Your task to perform on an android device: Go to battery settings Image 0: 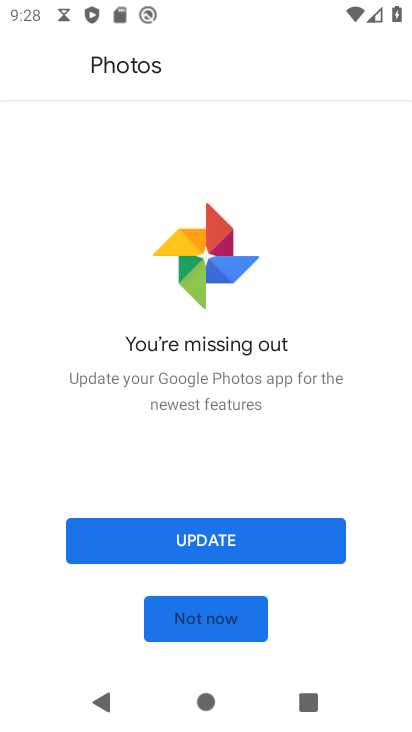
Step 0: press home button
Your task to perform on an android device: Go to battery settings Image 1: 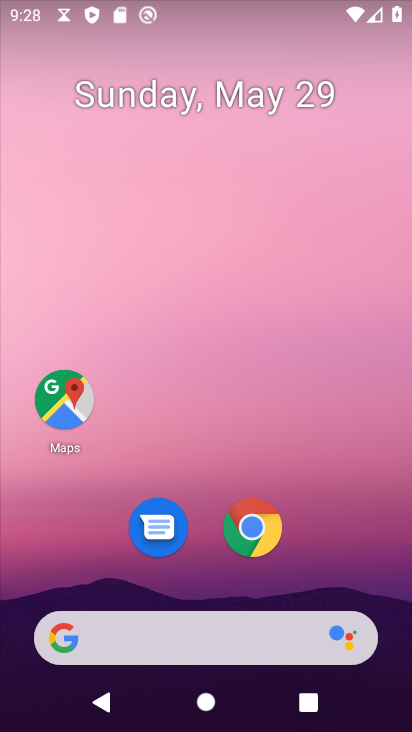
Step 1: drag from (189, 627) to (313, 128)
Your task to perform on an android device: Go to battery settings Image 2: 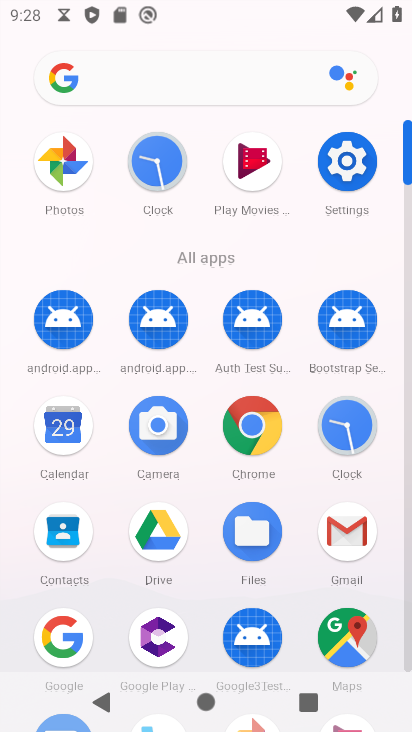
Step 2: click (345, 169)
Your task to perform on an android device: Go to battery settings Image 3: 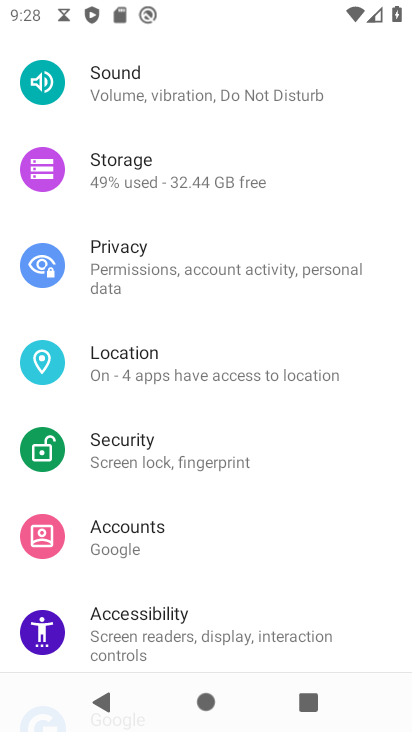
Step 3: drag from (255, 508) to (383, 133)
Your task to perform on an android device: Go to battery settings Image 4: 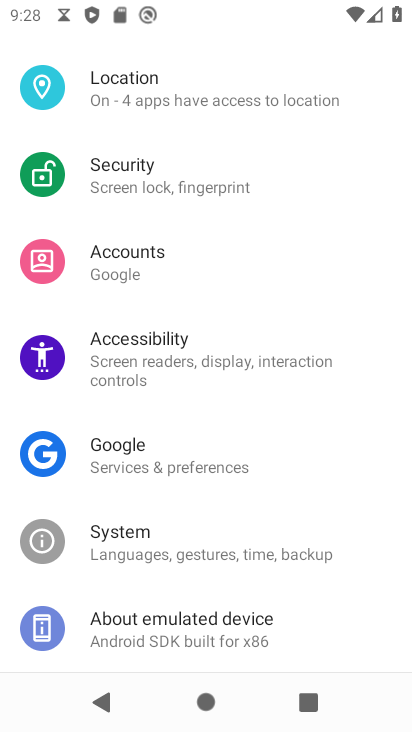
Step 4: drag from (267, 281) to (280, 629)
Your task to perform on an android device: Go to battery settings Image 5: 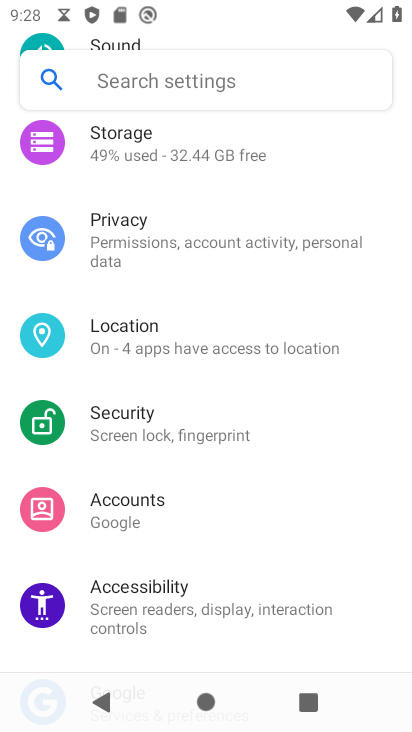
Step 5: drag from (273, 192) to (311, 636)
Your task to perform on an android device: Go to battery settings Image 6: 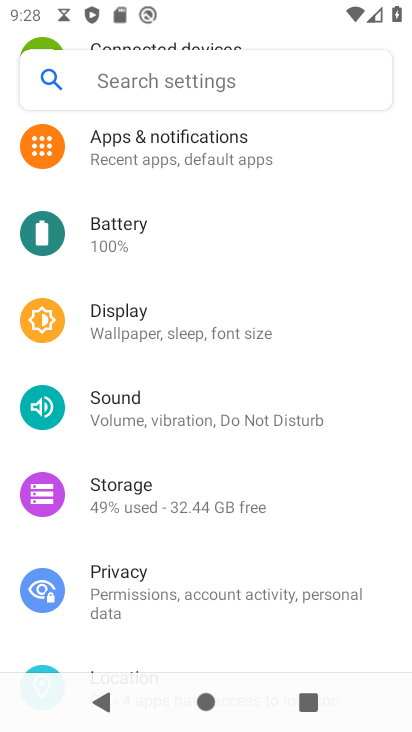
Step 6: click (127, 234)
Your task to perform on an android device: Go to battery settings Image 7: 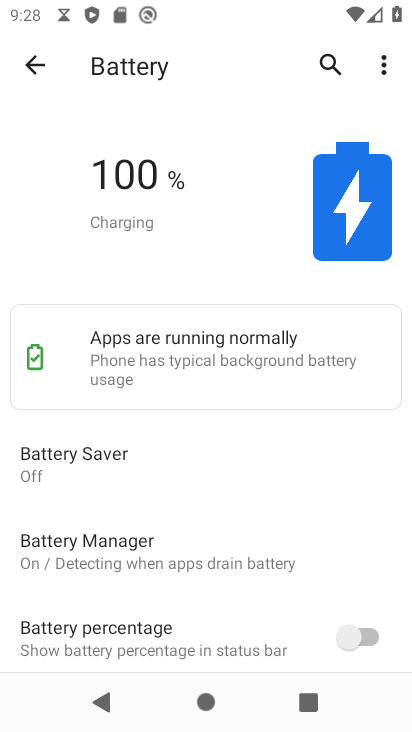
Step 7: task complete